Your task to perform on an android device: toggle translation in the chrome app Image 0: 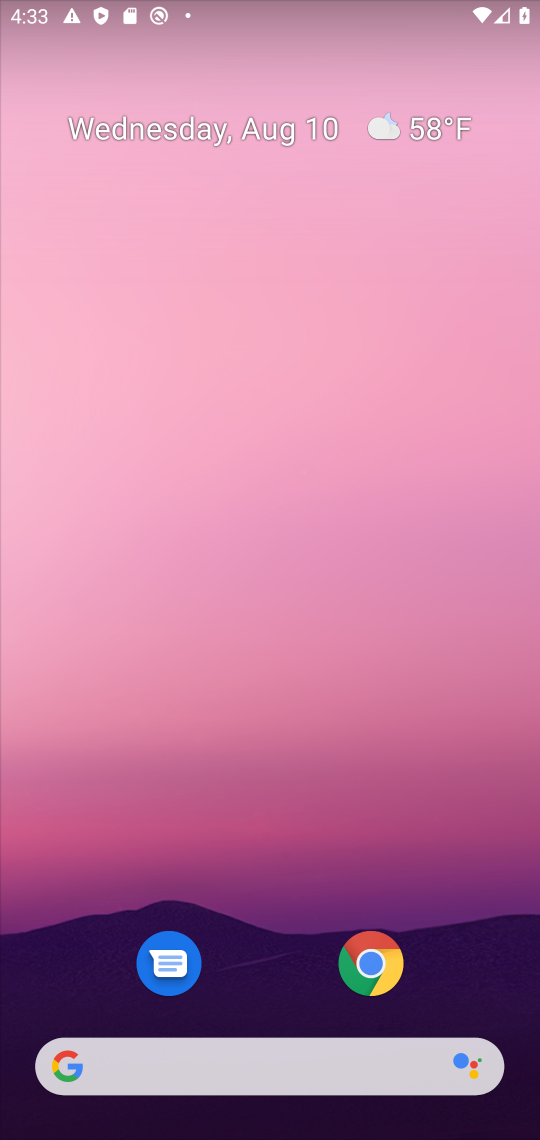
Step 0: drag from (260, 954) to (323, 0)
Your task to perform on an android device: toggle translation in the chrome app Image 1: 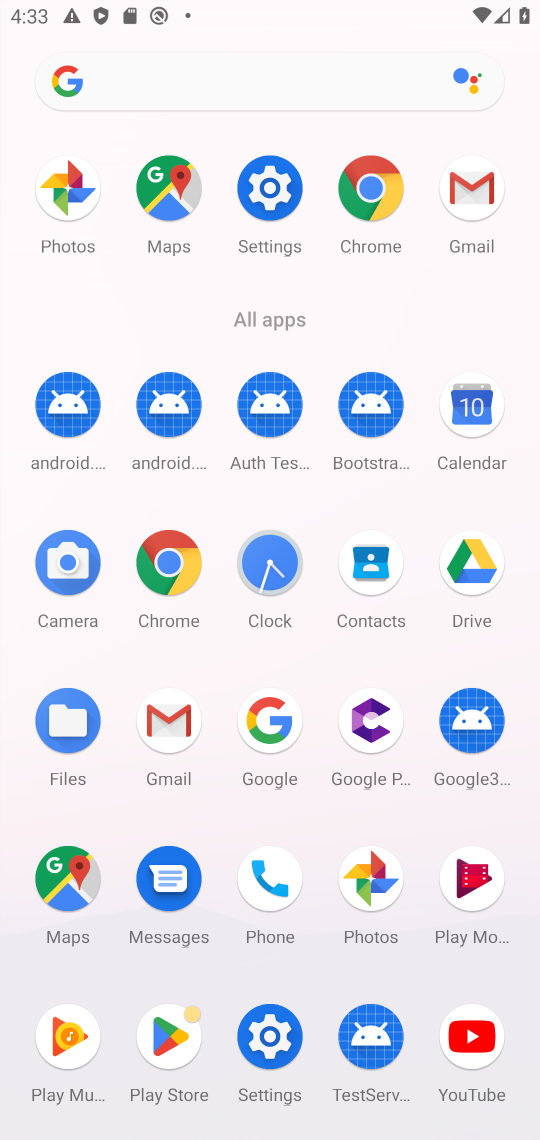
Step 1: click (161, 547)
Your task to perform on an android device: toggle translation in the chrome app Image 2: 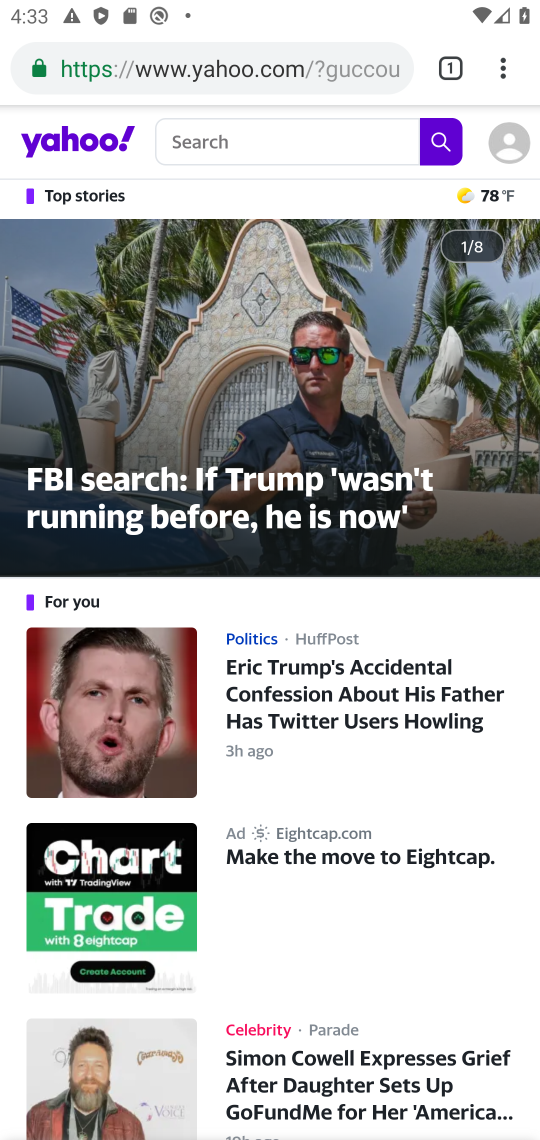
Step 2: drag from (506, 67) to (310, 812)
Your task to perform on an android device: toggle translation in the chrome app Image 3: 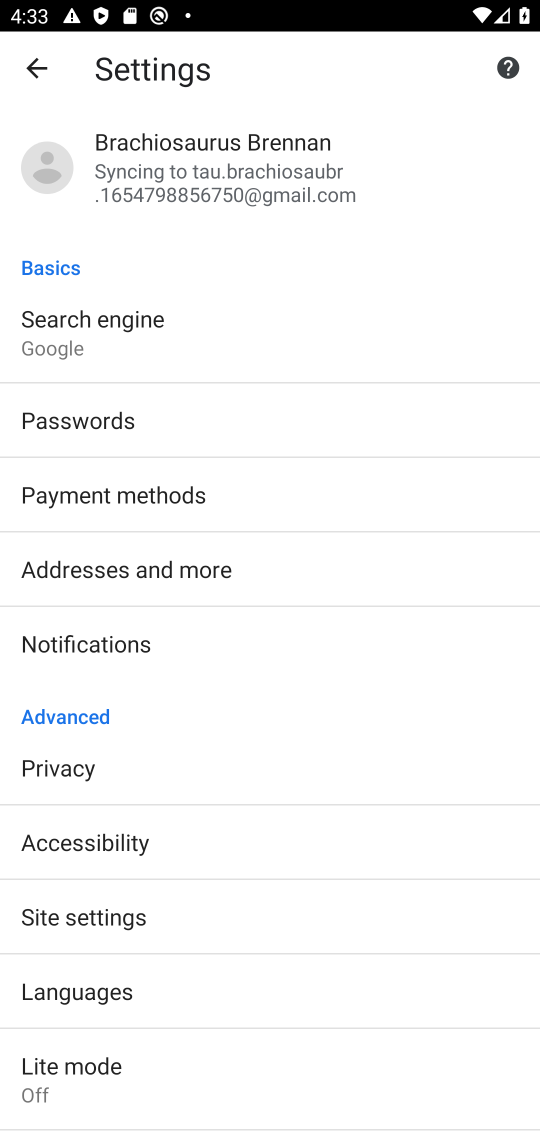
Step 3: drag from (326, 994) to (440, 333)
Your task to perform on an android device: toggle translation in the chrome app Image 4: 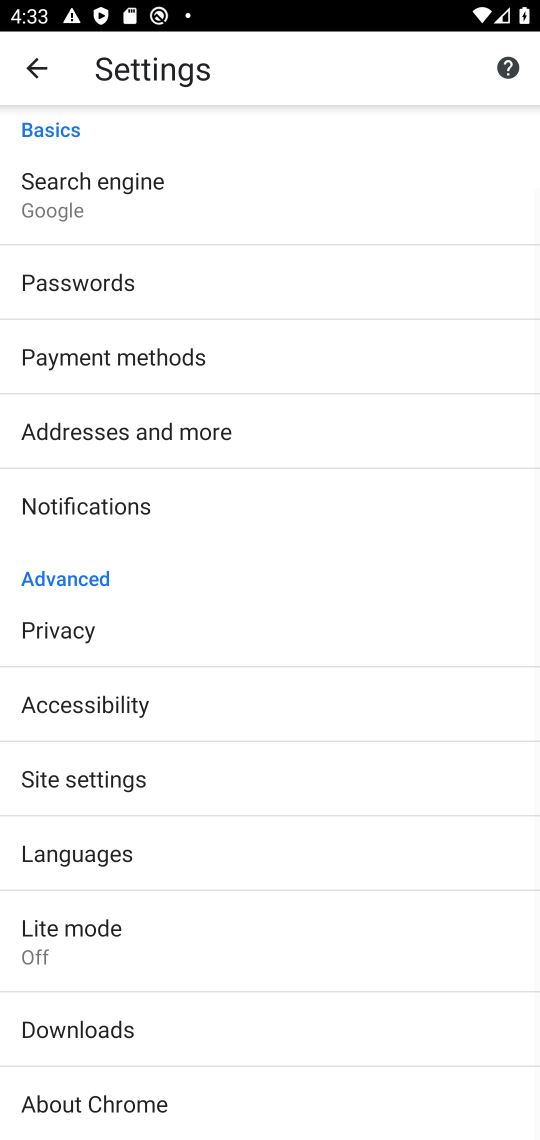
Step 4: click (128, 850)
Your task to perform on an android device: toggle translation in the chrome app Image 5: 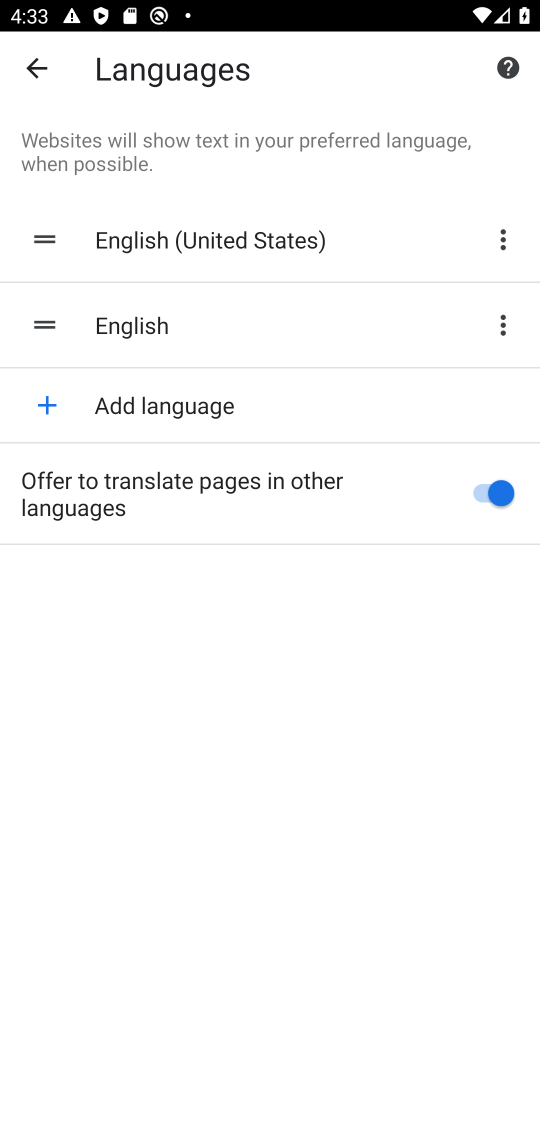
Step 5: click (370, 494)
Your task to perform on an android device: toggle translation in the chrome app Image 6: 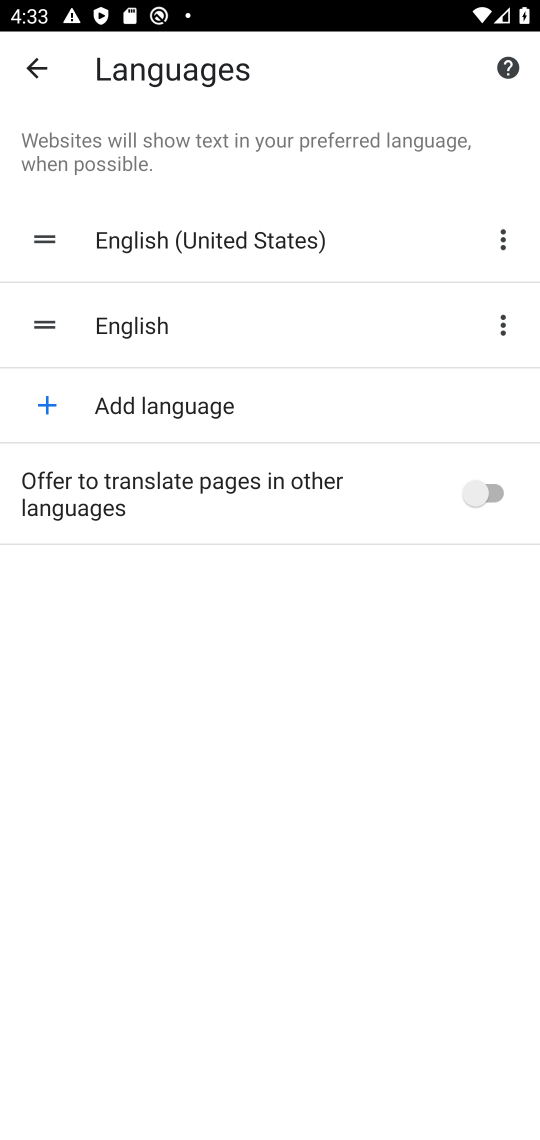
Step 6: task complete